Your task to perform on an android device: turn notification dots on Image 0: 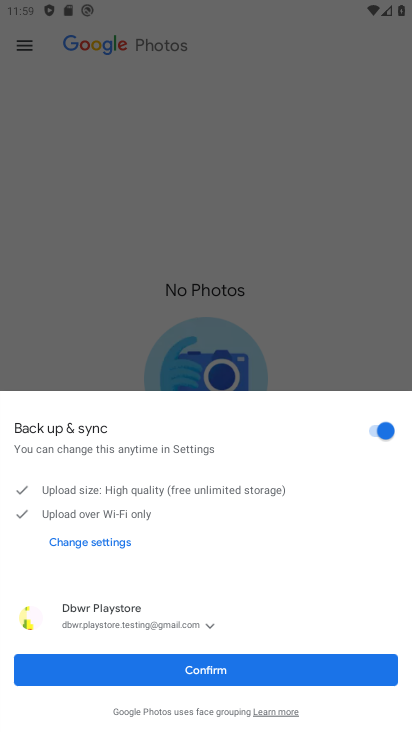
Step 0: press home button
Your task to perform on an android device: turn notification dots on Image 1: 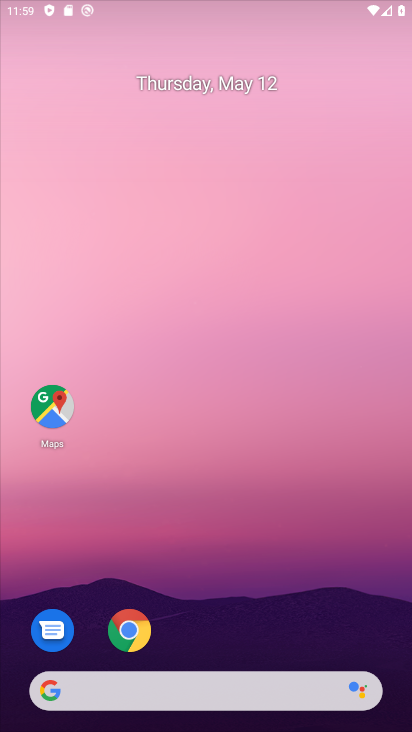
Step 1: drag from (400, 619) to (336, 142)
Your task to perform on an android device: turn notification dots on Image 2: 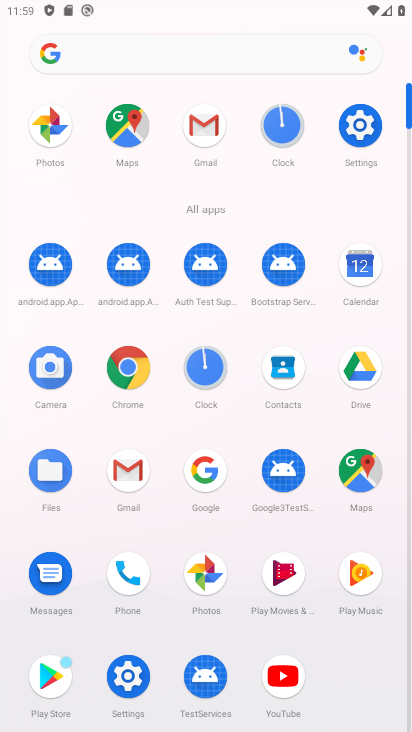
Step 2: click (131, 679)
Your task to perform on an android device: turn notification dots on Image 3: 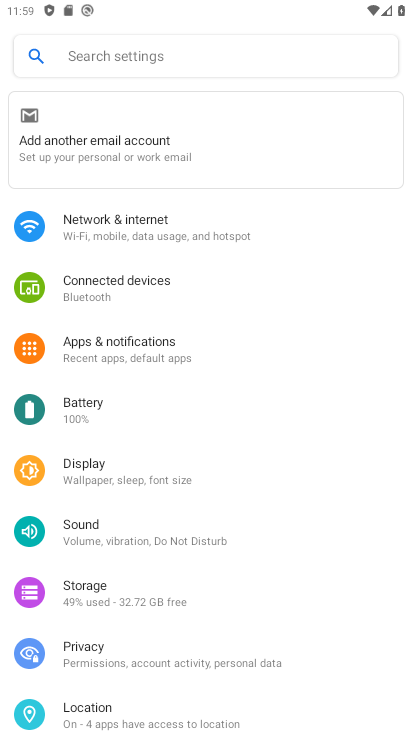
Step 3: click (154, 339)
Your task to perform on an android device: turn notification dots on Image 4: 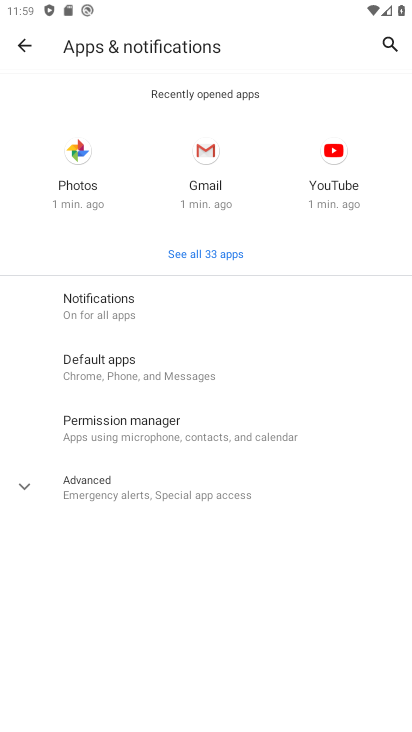
Step 4: click (161, 307)
Your task to perform on an android device: turn notification dots on Image 5: 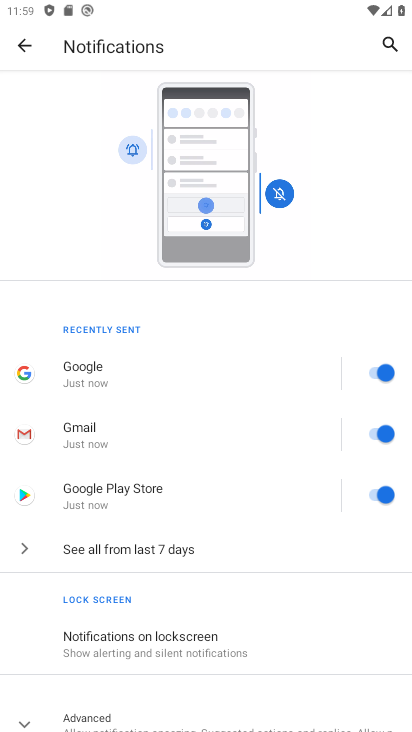
Step 5: drag from (230, 692) to (219, 404)
Your task to perform on an android device: turn notification dots on Image 6: 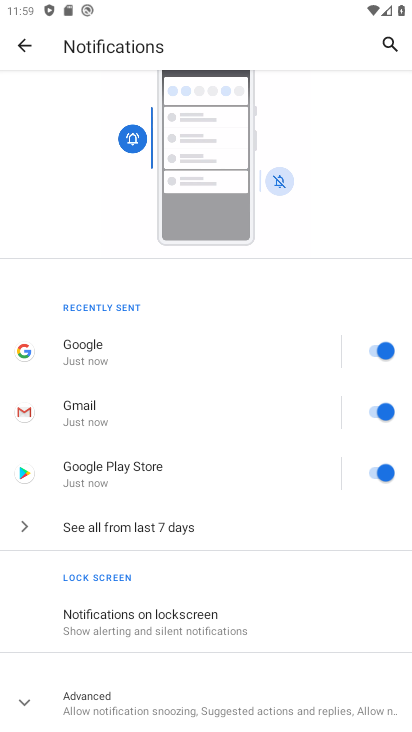
Step 6: click (146, 701)
Your task to perform on an android device: turn notification dots on Image 7: 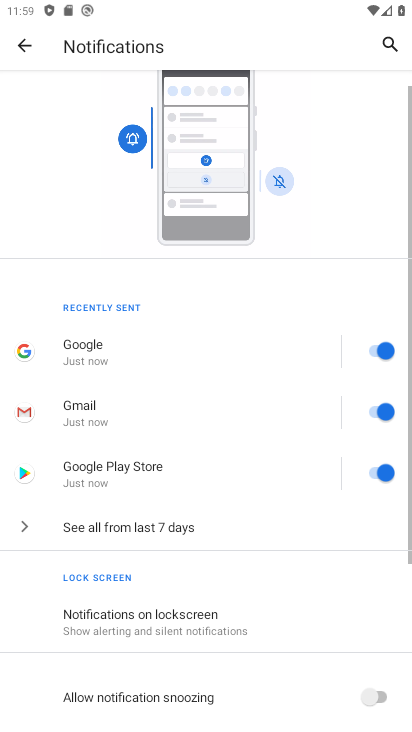
Step 7: task complete